Your task to perform on an android device: turn off notifications settings in the gmail app Image 0: 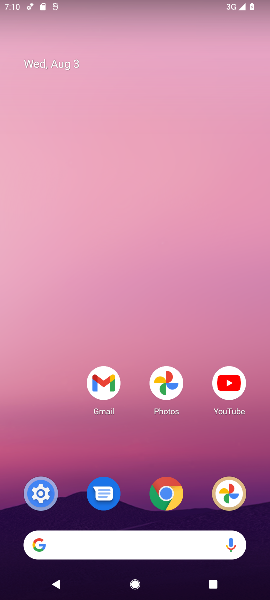
Step 0: drag from (137, 509) to (162, 231)
Your task to perform on an android device: turn off notifications settings in the gmail app Image 1: 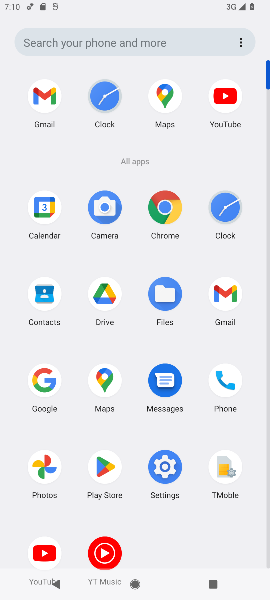
Step 1: click (219, 294)
Your task to perform on an android device: turn off notifications settings in the gmail app Image 2: 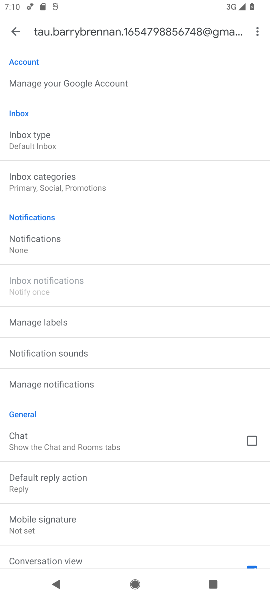
Step 2: click (29, 237)
Your task to perform on an android device: turn off notifications settings in the gmail app Image 3: 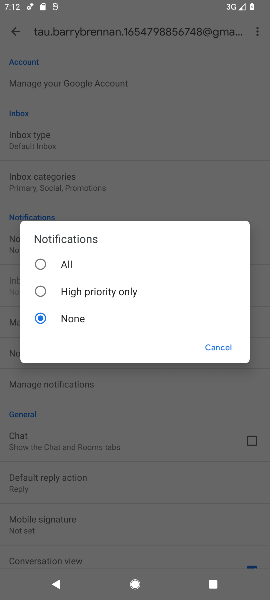
Step 3: task complete